Your task to perform on an android device: uninstall "Google Docs" Image 0: 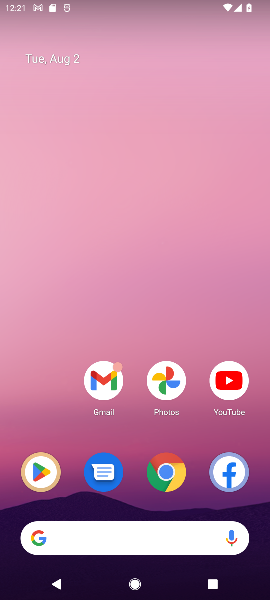
Step 0: click (43, 481)
Your task to perform on an android device: uninstall "Google Docs" Image 1: 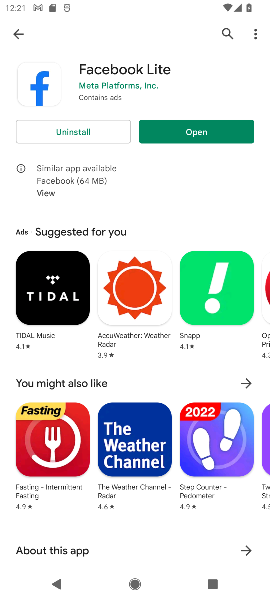
Step 1: click (226, 33)
Your task to perform on an android device: uninstall "Google Docs" Image 2: 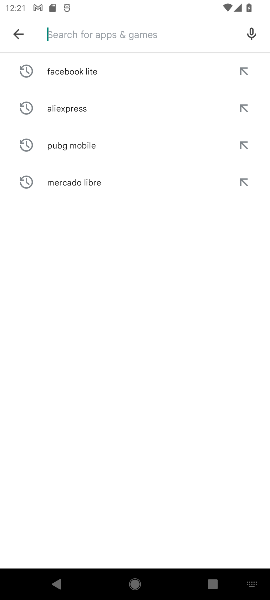
Step 2: type "google docs"
Your task to perform on an android device: uninstall "Google Docs" Image 3: 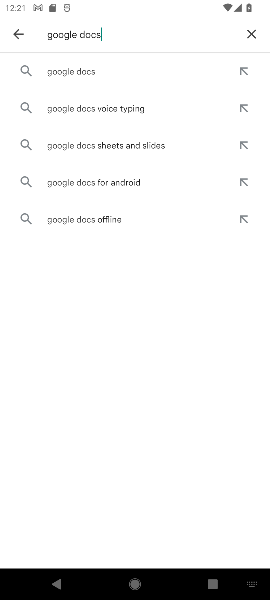
Step 3: click (162, 65)
Your task to perform on an android device: uninstall "Google Docs" Image 4: 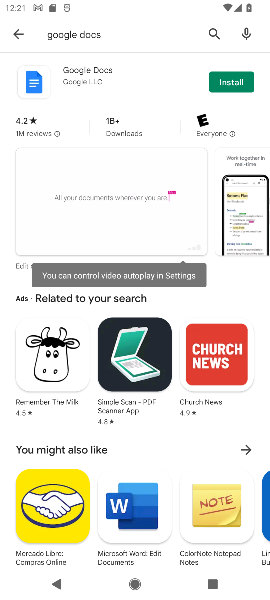
Step 4: click (107, 76)
Your task to perform on an android device: uninstall "Google Docs" Image 5: 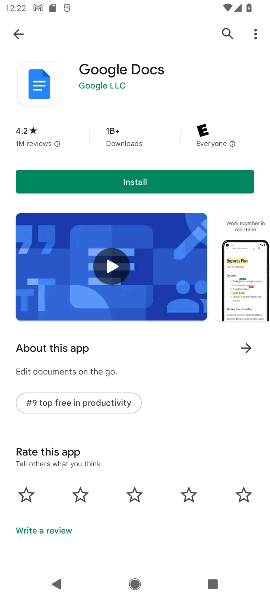
Step 5: task complete